Your task to perform on an android device: open app "Grab" (install if not already installed) Image 0: 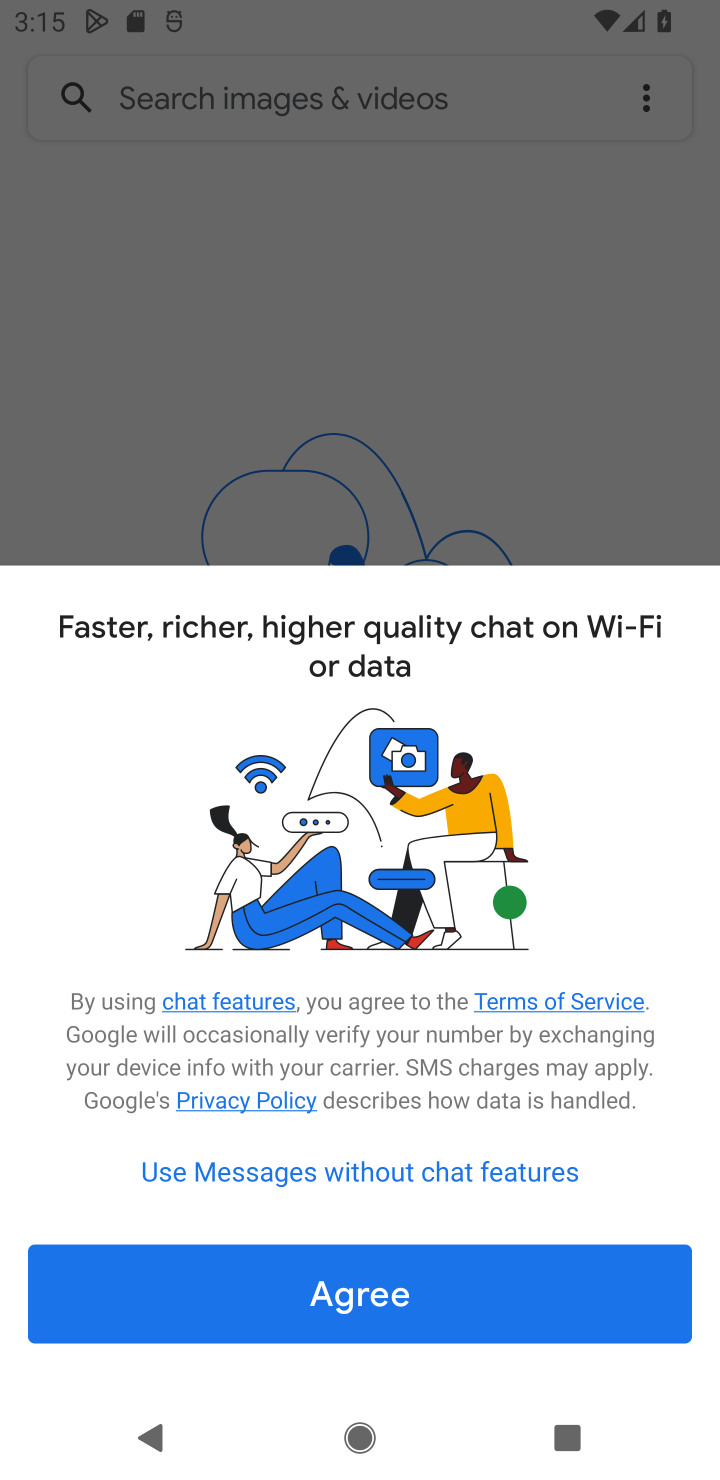
Step 0: press home button
Your task to perform on an android device: open app "Grab" (install if not already installed) Image 1: 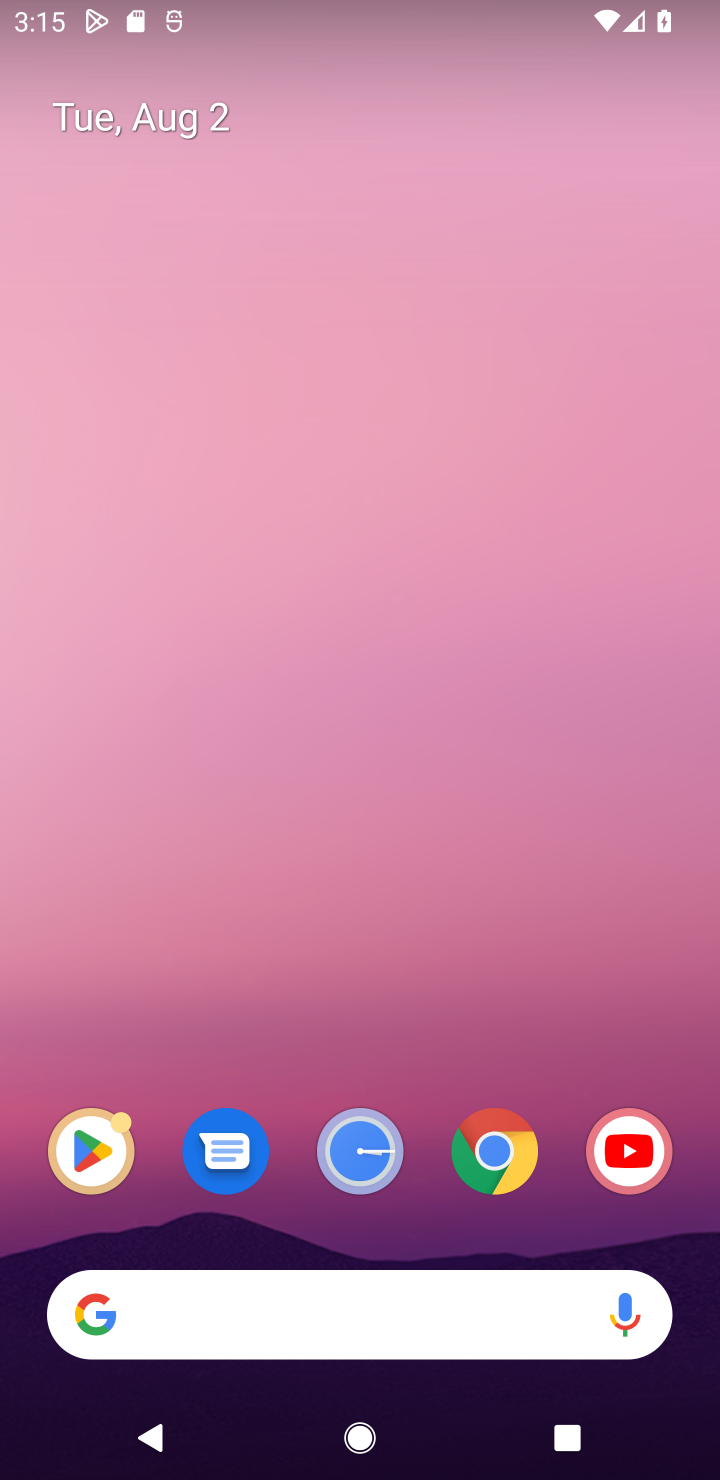
Step 1: click (89, 1171)
Your task to perform on an android device: open app "Grab" (install if not already installed) Image 2: 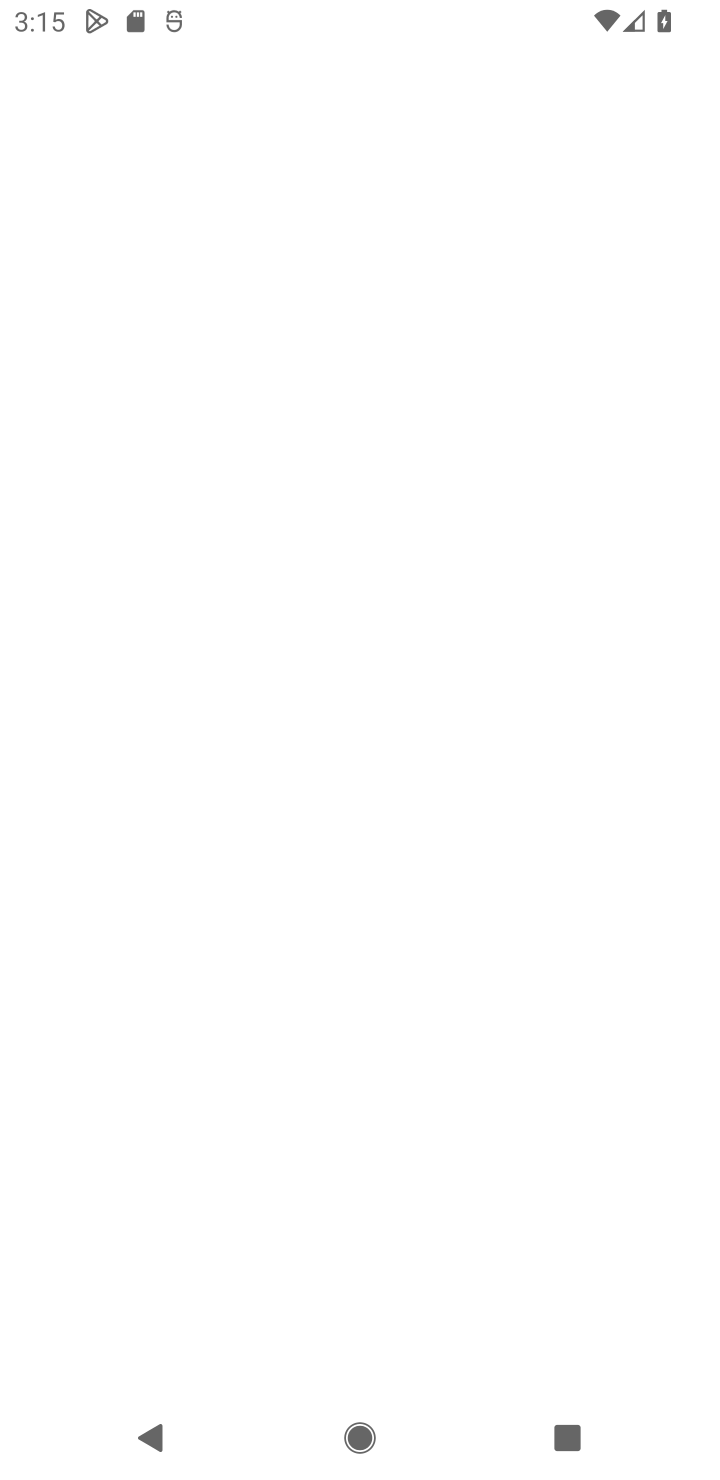
Step 2: task complete